Your task to perform on an android device: change your default location settings in chrome Image 0: 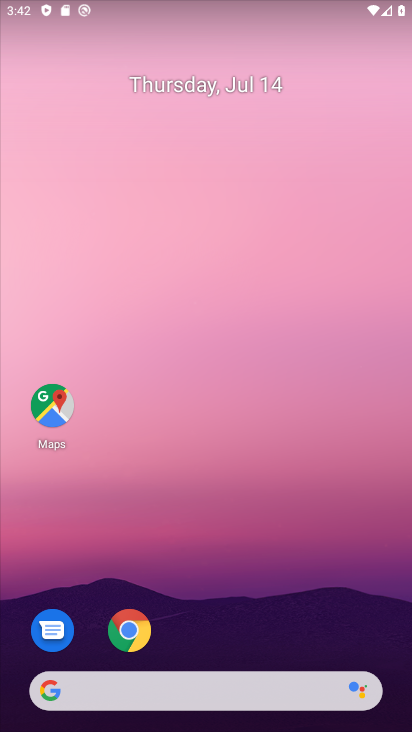
Step 0: drag from (268, 697) to (402, 521)
Your task to perform on an android device: change your default location settings in chrome Image 1: 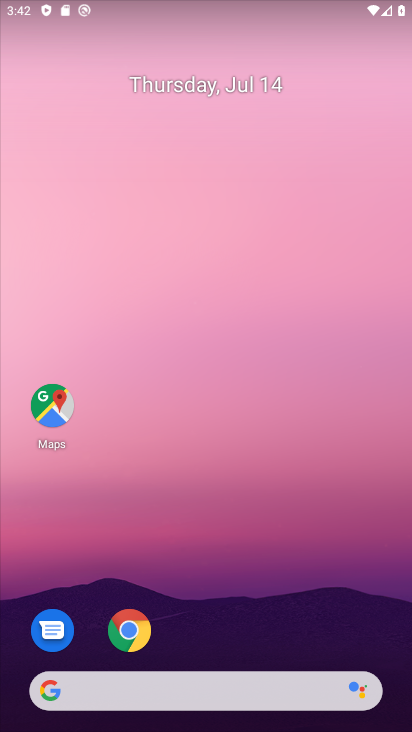
Step 1: drag from (243, 688) to (386, 13)
Your task to perform on an android device: change your default location settings in chrome Image 2: 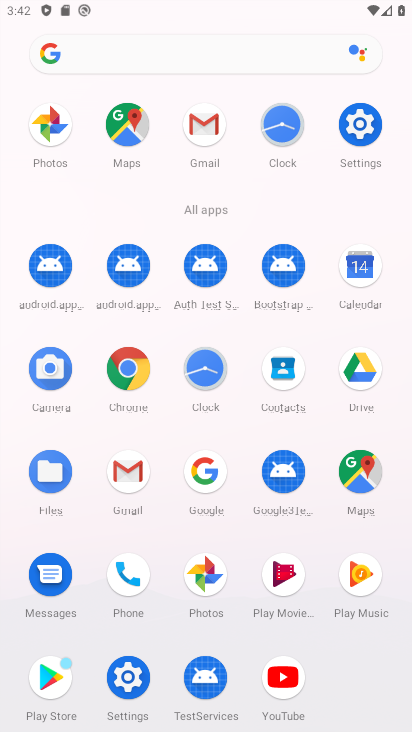
Step 2: click (126, 358)
Your task to perform on an android device: change your default location settings in chrome Image 3: 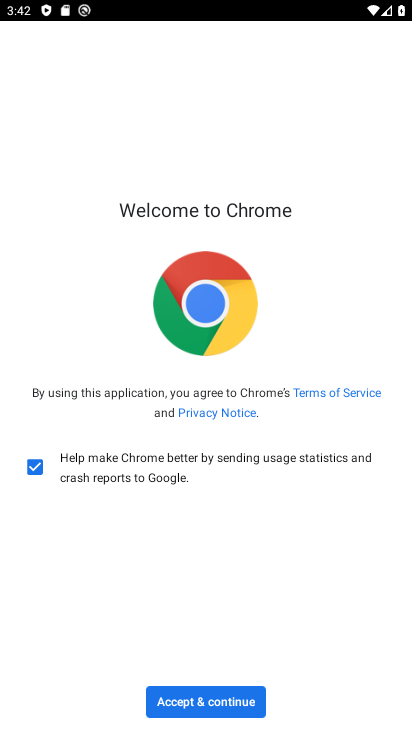
Step 3: click (232, 694)
Your task to perform on an android device: change your default location settings in chrome Image 4: 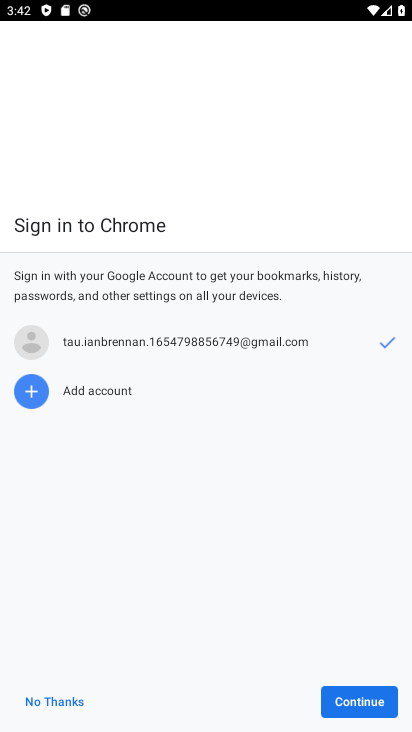
Step 4: click (53, 696)
Your task to perform on an android device: change your default location settings in chrome Image 5: 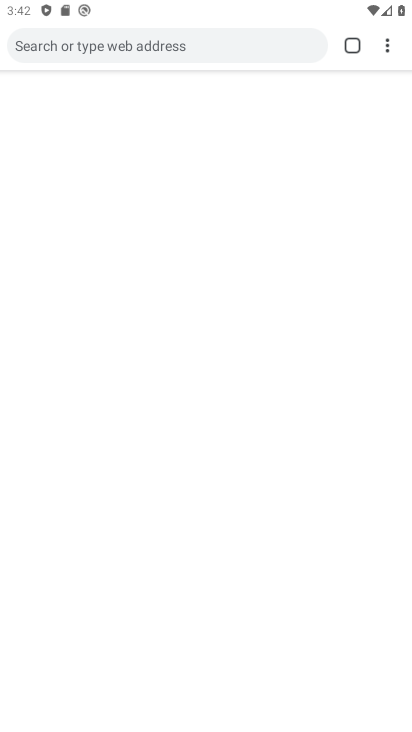
Step 5: click (387, 36)
Your task to perform on an android device: change your default location settings in chrome Image 6: 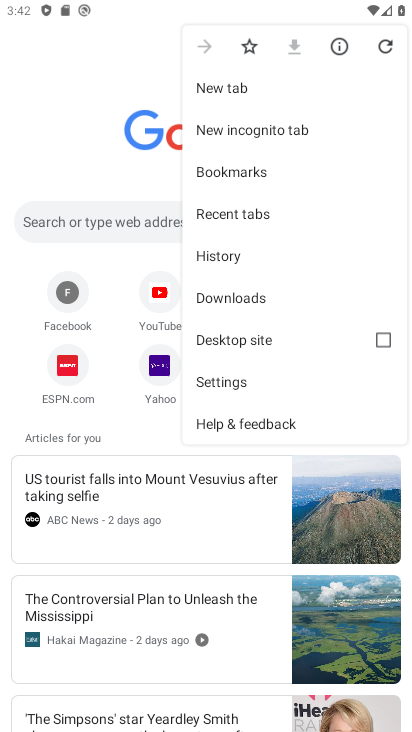
Step 6: click (261, 386)
Your task to perform on an android device: change your default location settings in chrome Image 7: 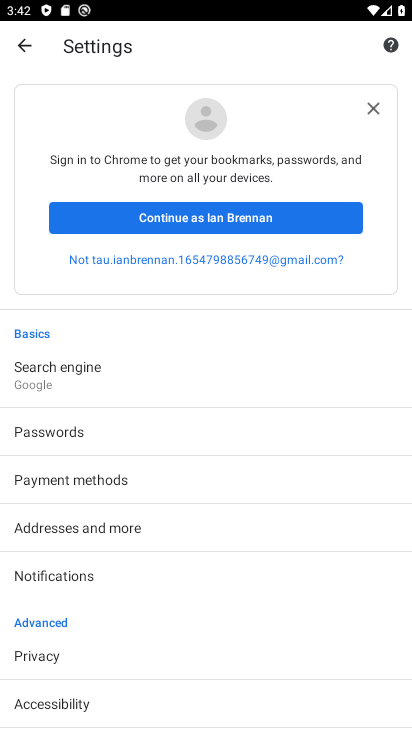
Step 7: drag from (124, 619) to (151, 219)
Your task to perform on an android device: change your default location settings in chrome Image 8: 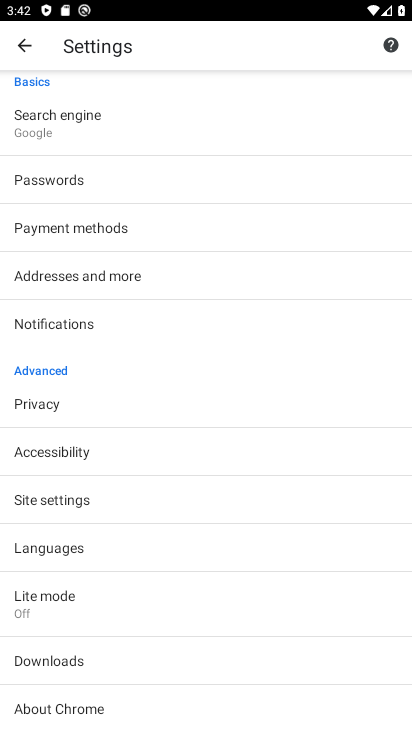
Step 8: click (87, 513)
Your task to perform on an android device: change your default location settings in chrome Image 9: 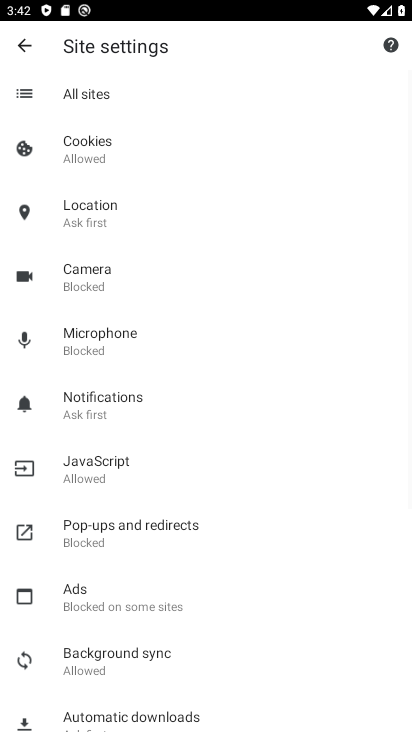
Step 9: click (122, 217)
Your task to perform on an android device: change your default location settings in chrome Image 10: 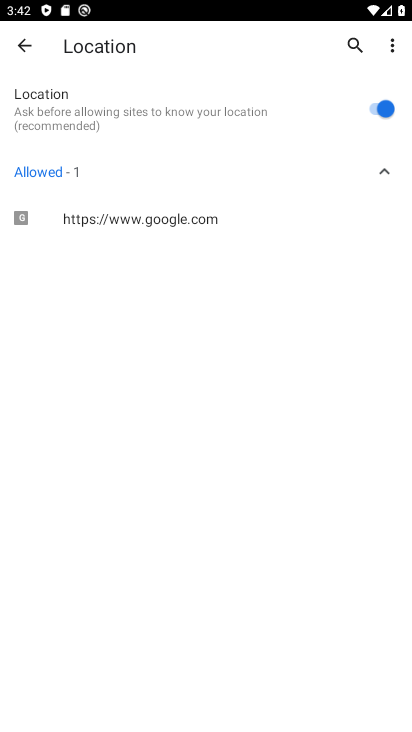
Step 10: click (375, 102)
Your task to perform on an android device: change your default location settings in chrome Image 11: 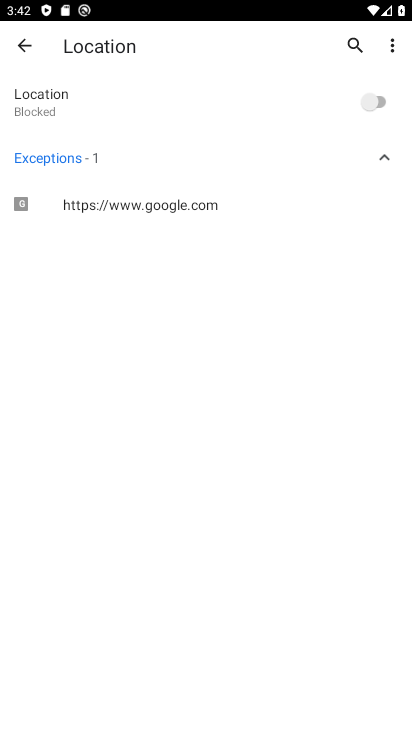
Step 11: task complete